Your task to perform on an android device: Open Reddit.com Image 0: 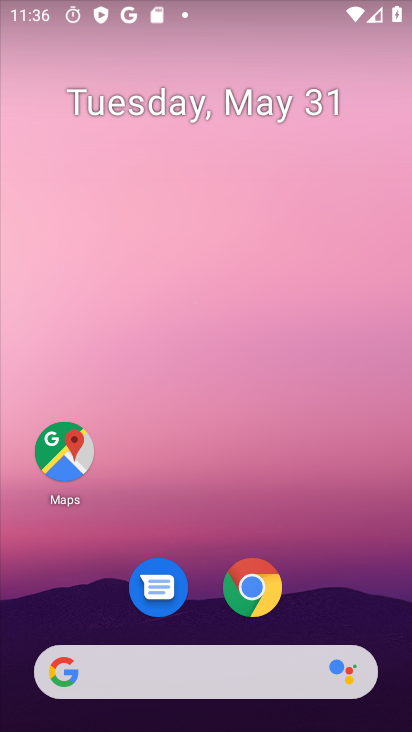
Step 0: click (253, 588)
Your task to perform on an android device: Open Reddit.com Image 1: 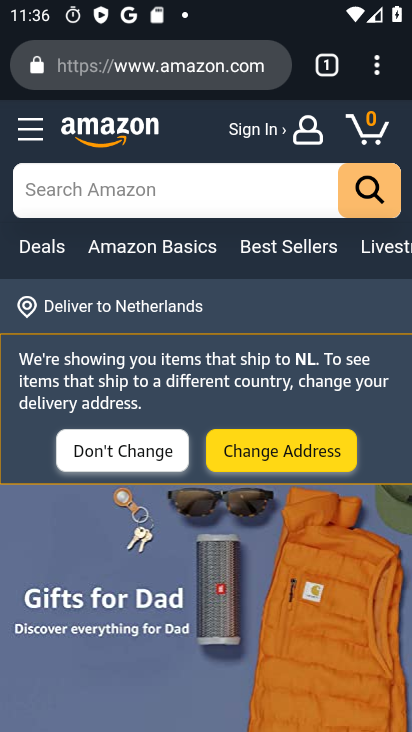
Step 1: click (255, 65)
Your task to perform on an android device: Open Reddit.com Image 2: 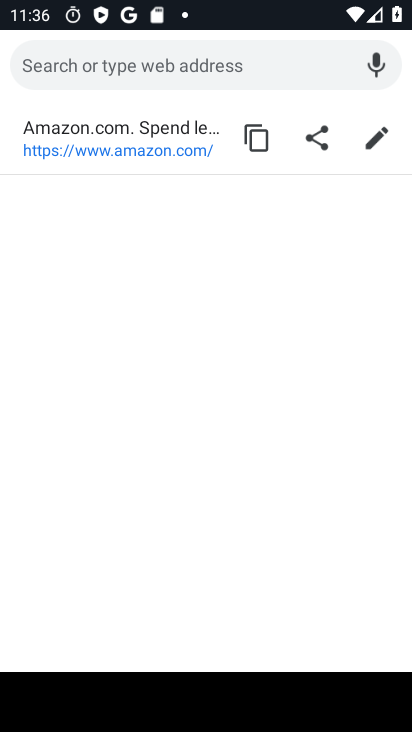
Step 2: type "Reddit.com"
Your task to perform on an android device: Open Reddit.com Image 3: 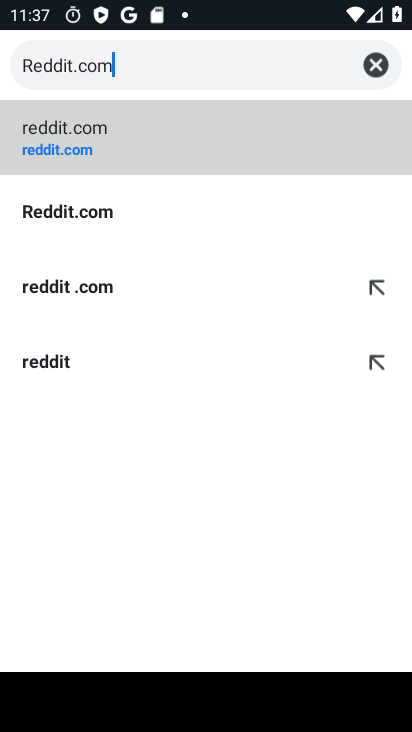
Step 3: type ""
Your task to perform on an android device: Open Reddit.com Image 4: 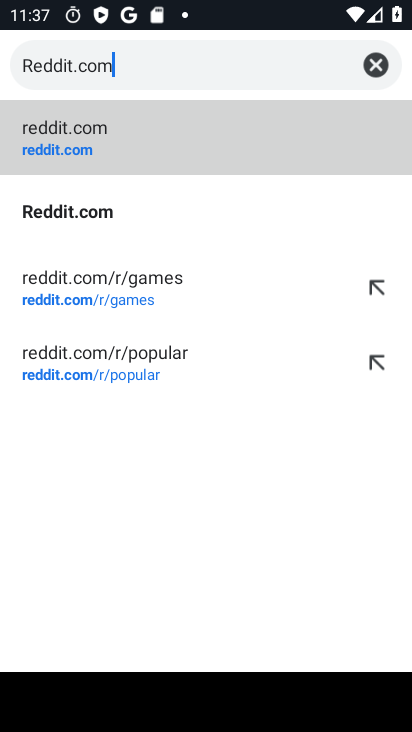
Step 4: click (58, 220)
Your task to perform on an android device: Open Reddit.com Image 5: 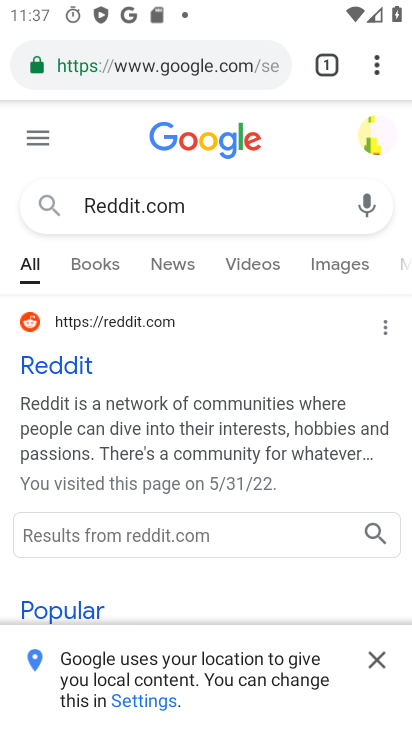
Step 5: click (52, 362)
Your task to perform on an android device: Open Reddit.com Image 6: 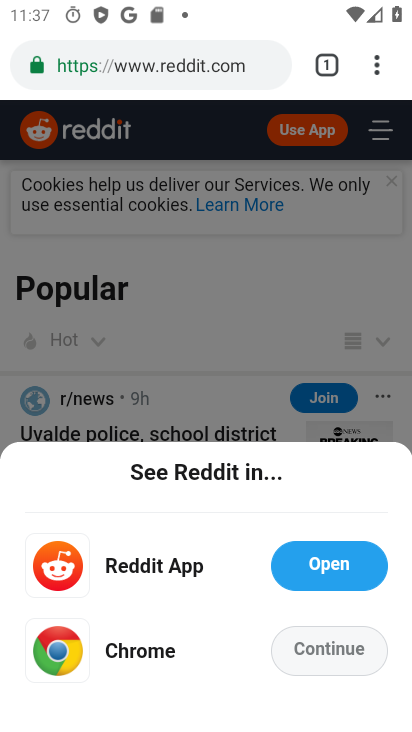
Step 6: click (307, 652)
Your task to perform on an android device: Open Reddit.com Image 7: 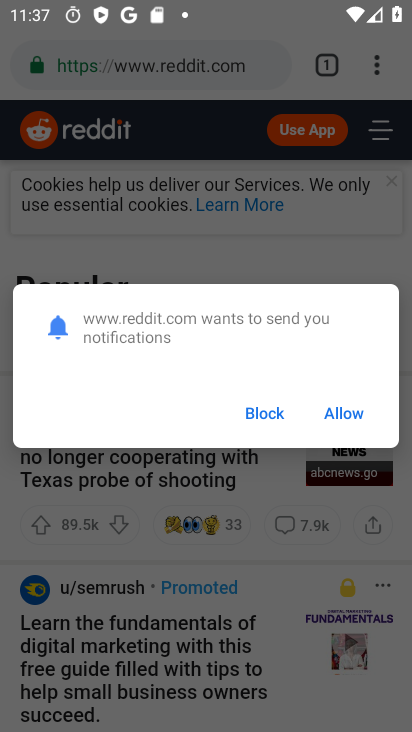
Step 7: click (341, 406)
Your task to perform on an android device: Open Reddit.com Image 8: 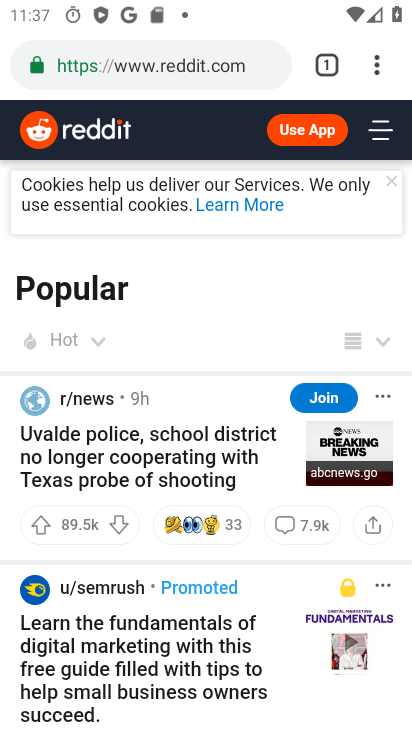
Step 8: task complete